Your task to perform on an android device: Open the web browser Image 0: 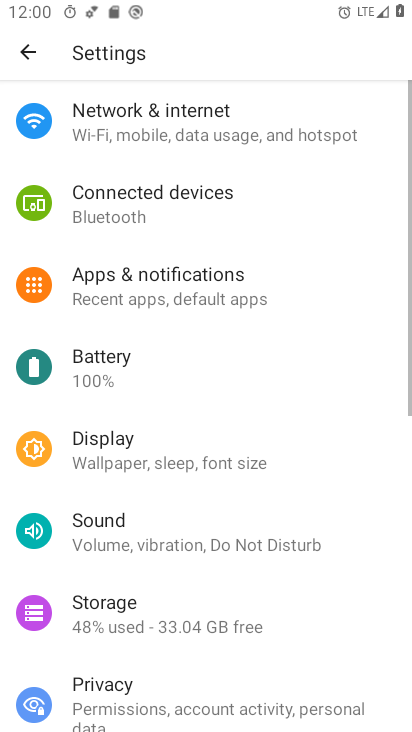
Step 0: drag from (332, 681) to (223, 257)
Your task to perform on an android device: Open the web browser Image 1: 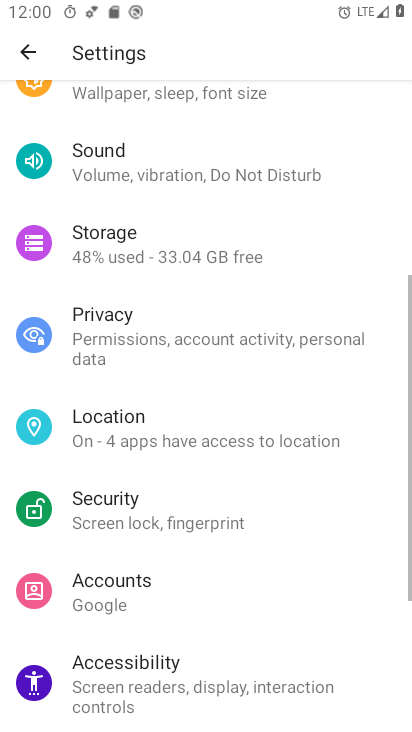
Step 1: press back button
Your task to perform on an android device: Open the web browser Image 2: 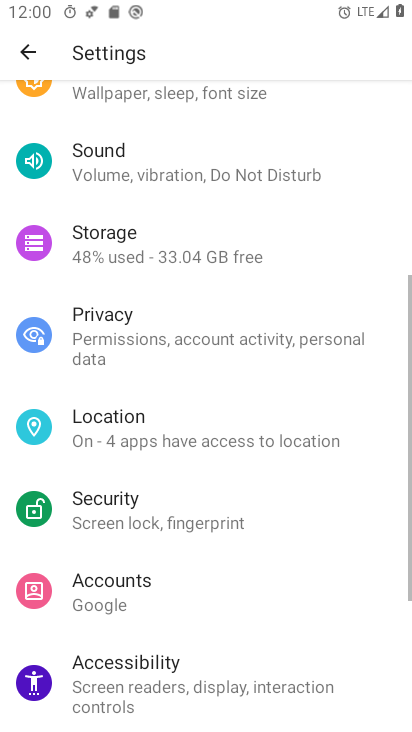
Step 2: press back button
Your task to perform on an android device: Open the web browser Image 3: 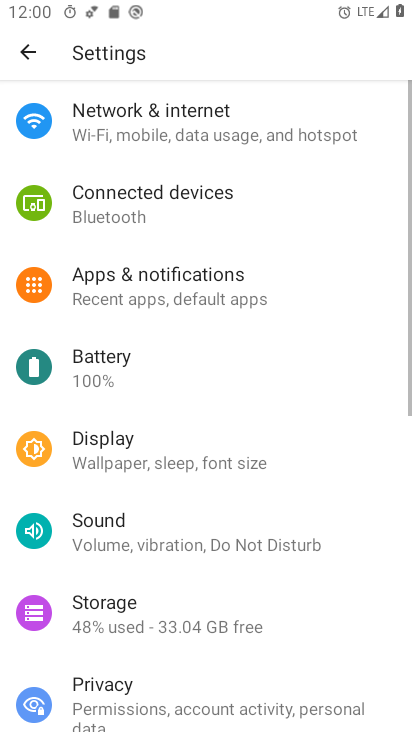
Step 3: press back button
Your task to perform on an android device: Open the web browser Image 4: 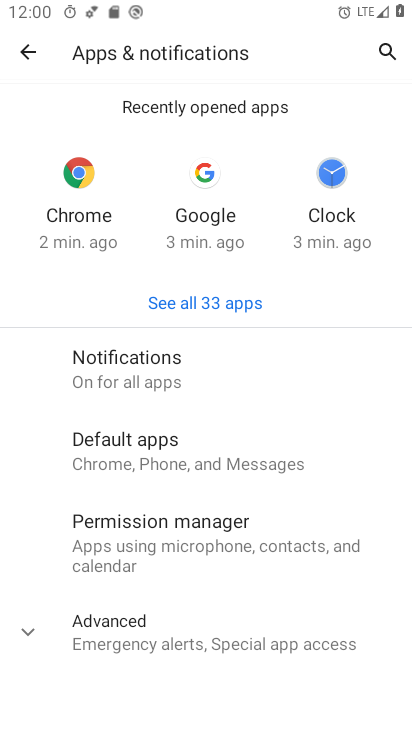
Step 4: click (20, 45)
Your task to perform on an android device: Open the web browser Image 5: 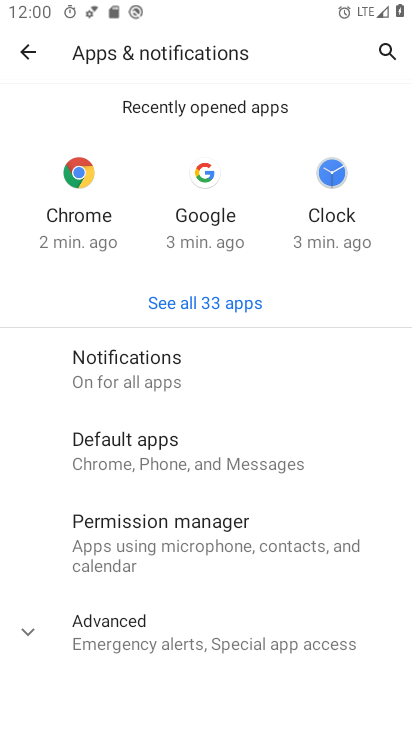
Step 5: click (22, 45)
Your task to perform on an android device: Open the web browser Image 6: 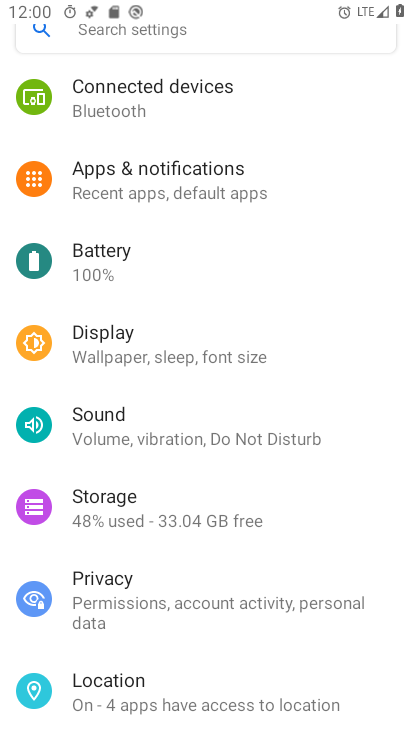
Step 6: drag from (126, 213) to (141, 496)
Your task to perform on an android device: Open the web browser Image 7: 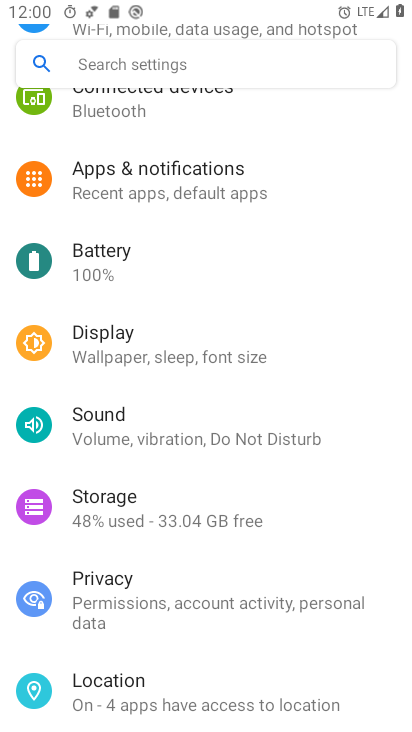
Step 7: click (148, 553)
Your task to perform on an android device: Open the web browser Image 8: 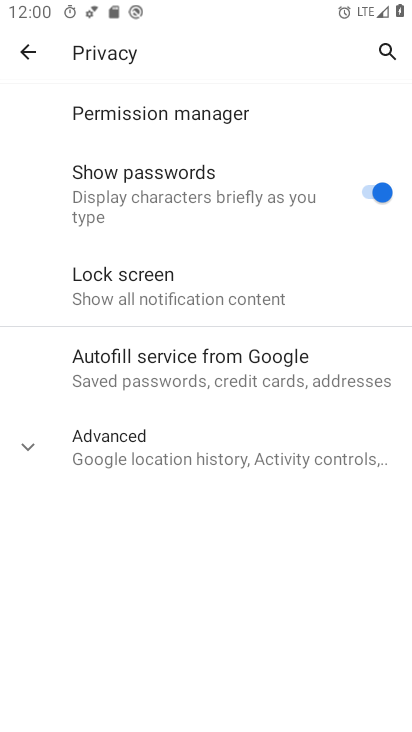
Step 8: press back button
Your task to perform on an android device: Open the web browser Image 9: 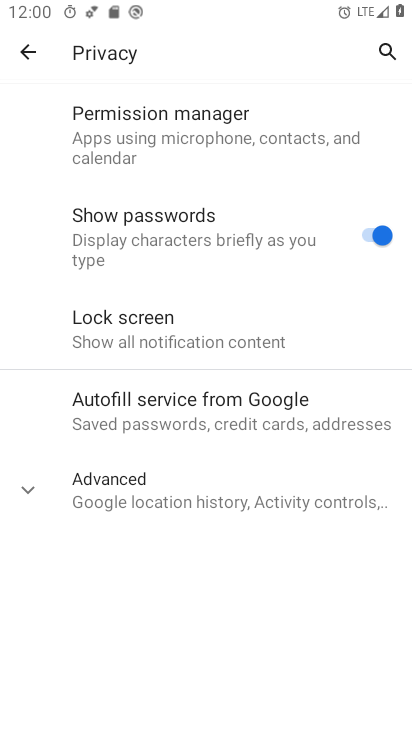
Step 9: press back button
Your task to perform on an android device: Open the web browser Image 10: 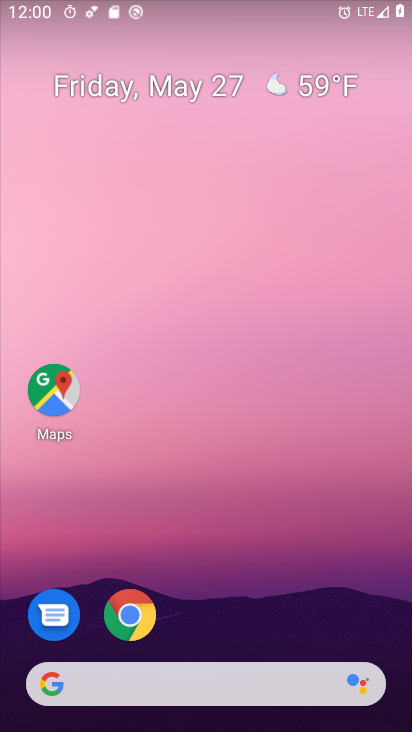
Step 10: drag from (248, 669) to (163, 55)
Your task to perform on an android device: Open the web browser Image 11: 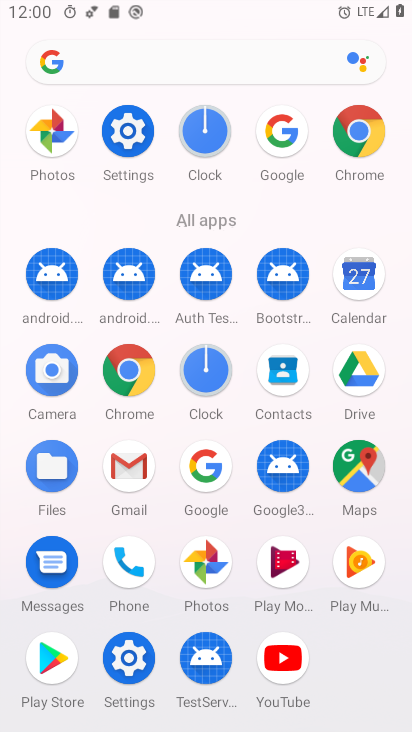
Step 11: click (359, 127)
Your task to perform on an android device: Open the web browser Image 12: 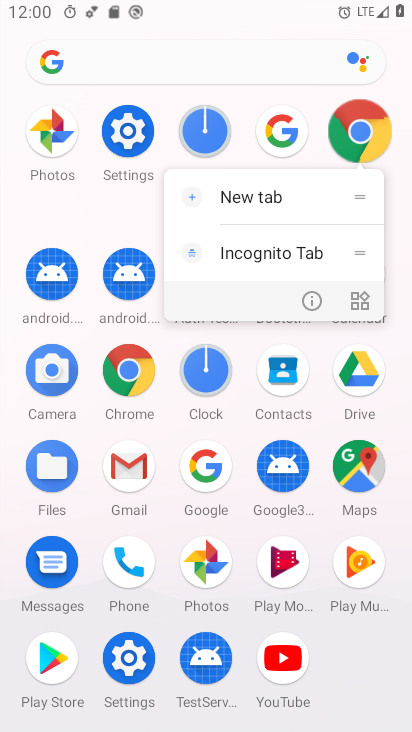
Step 12: click (371, 133)
Your task to perform on an android device: Open the web browser Image 13: 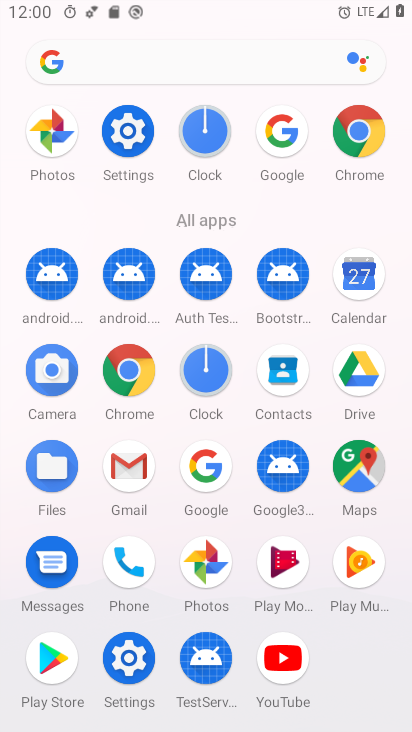
Step 13: click (369, 139)
Your task to perform on an android device: Open the web browser Image 14: 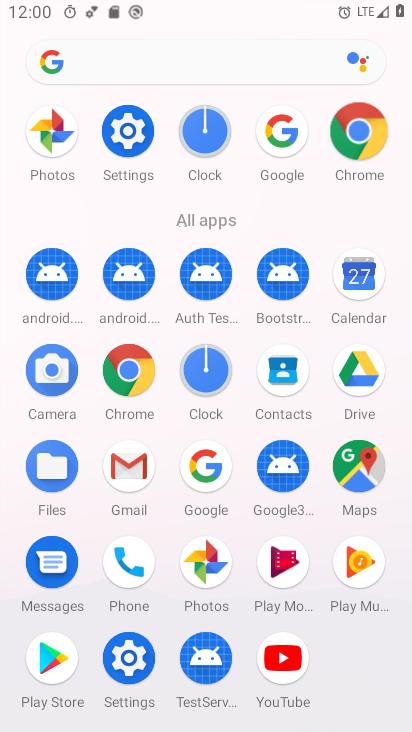
Step 14: click (364, 140)
Your task to perform on an android device: Open the web browser Image 15: 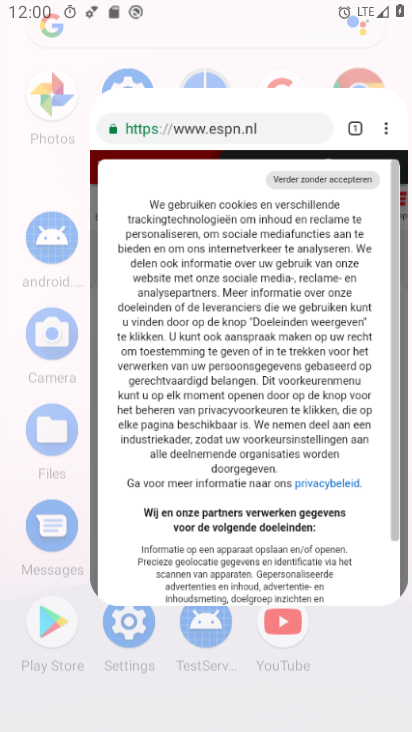
Step 15: click (364, 140)
Your task to perform on an android device: Open the web browser Image 16: 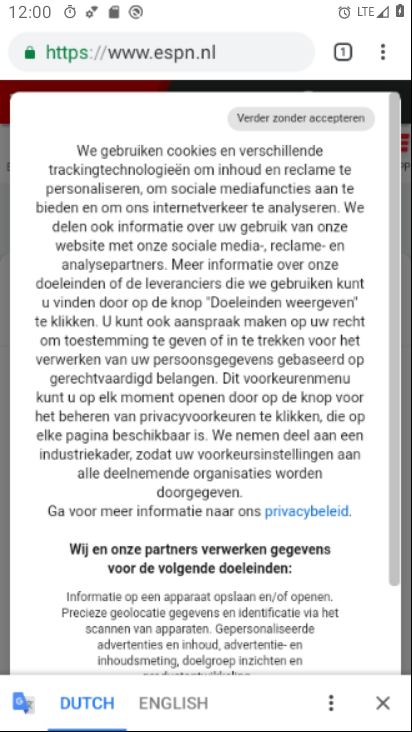
Step 16: click (364, 138)
Your task to perform on an android device: Open the web browser Image 17: 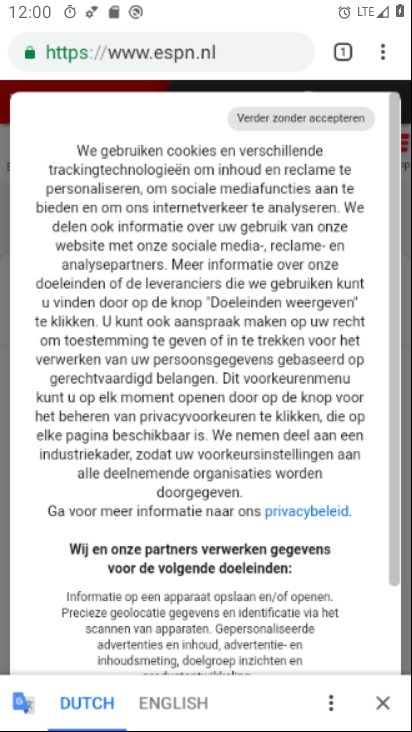
Step 17: click (386, 51)
Your task to perform on an android device: Open the web browser Image 18: 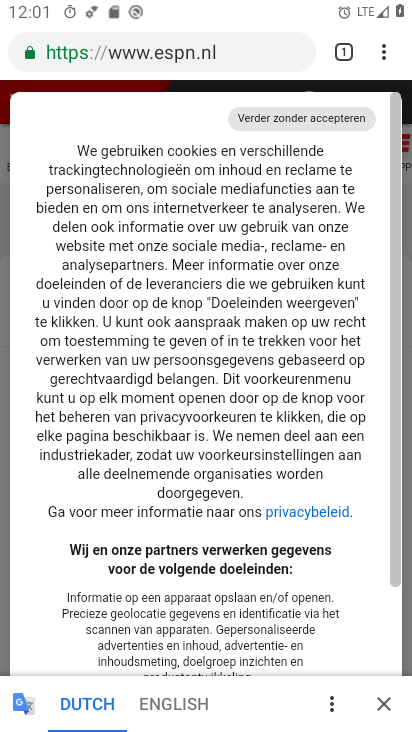
Step 18: drag from (376, 80) to (406, 402)
Your task to perform on an android device: Open the web browser Image 19: 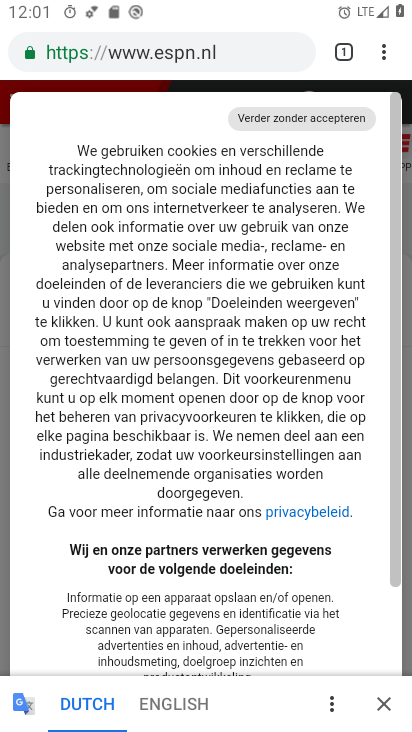
Step 19: click (382, 55)
Your task to perform on an android device: Open the web browser Image 20: 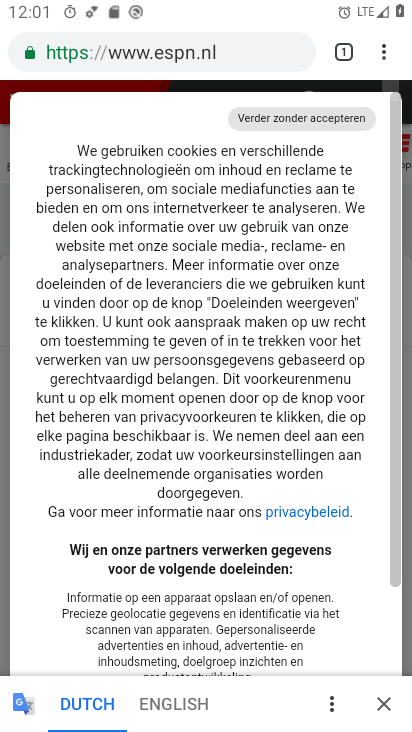
Step 20: click (382, 55)
Your task to perform on an android device: Open the web browser Image 21: 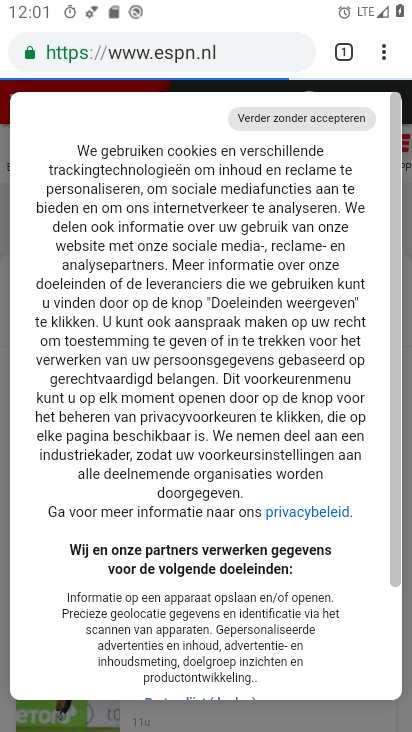
Step 21: drag from (385, 52) to (207, 122)
Your task to perform on an android device: Open the web browser Image 22: 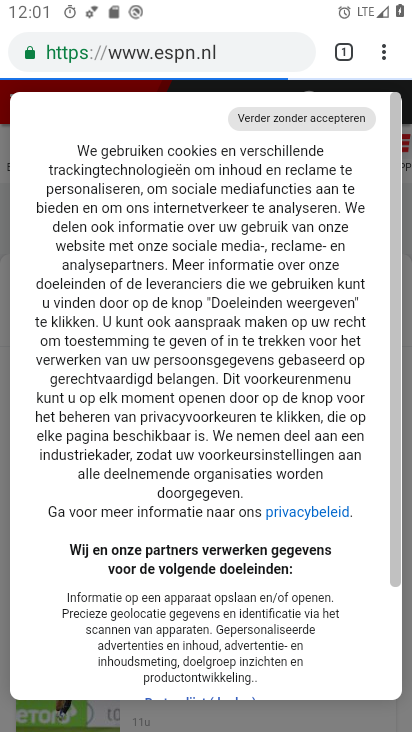
Step 22: click (190, 107)
Your task to perform on an android device: Open the web browser Image 23: 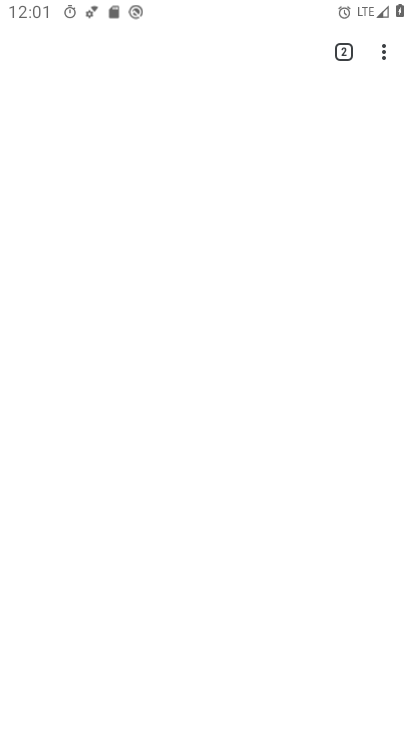
Step 23: click (190, 107)
Your task to perform on an android device: Open the web browser Image 24: 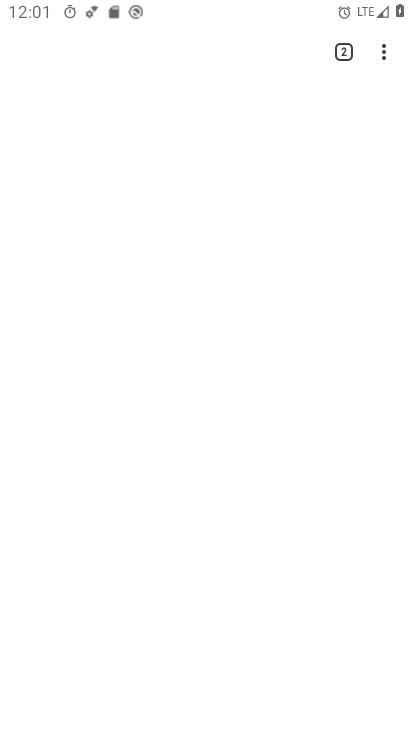
Step 24: click (190, 107)
Your task to perform on an android device: Open the web browser Image 25: 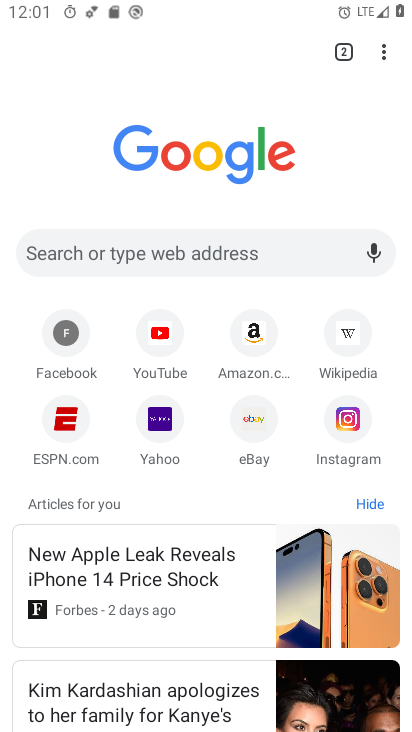
Step 25: task complete